Your task to perform on an android device: Open Amazon Image 0: 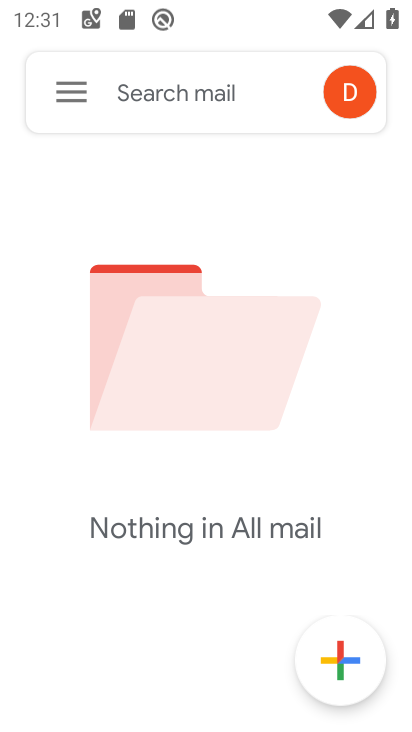
Step 0: press home button
Your task to perform on an android device: Open Amazon Image 1: 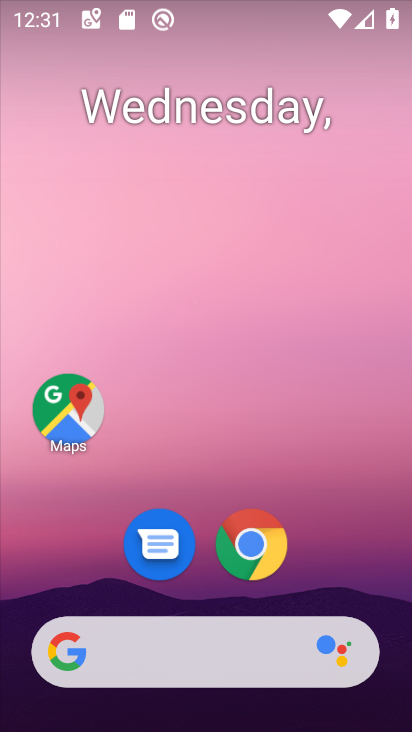
Step 1: drag from (220, 602) to (212, 255)
Your task to perform on an android device: Open Amazon Image 2: 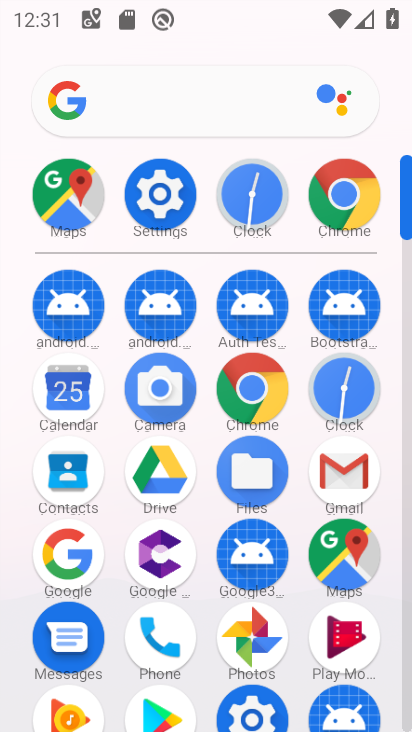
Step 2: click (238, 407)
Your task to perform on an android device: Open Amazon Image 3: 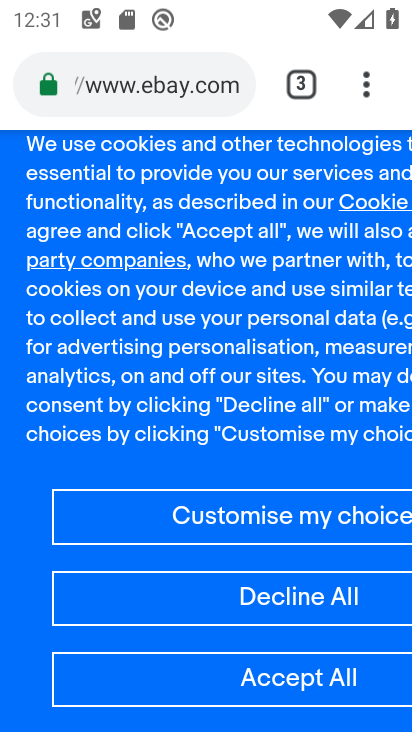
Step 3: click (317, 87)
Your task to perform on an android device: Open Amazon Image 4: 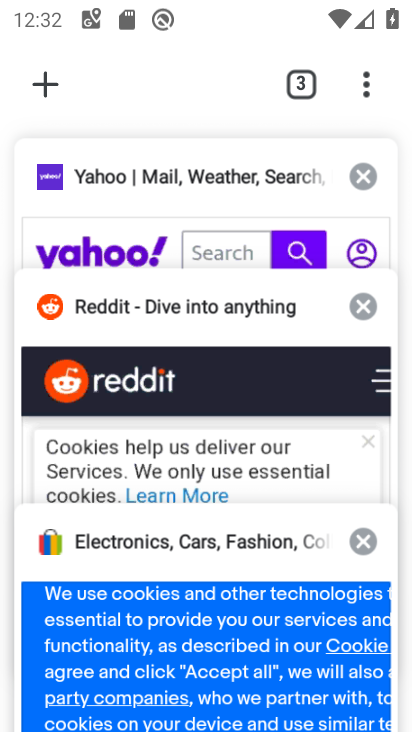
Step 4: click (46, 78)
Your task to perform on an android device: Open Amazon Image 5: 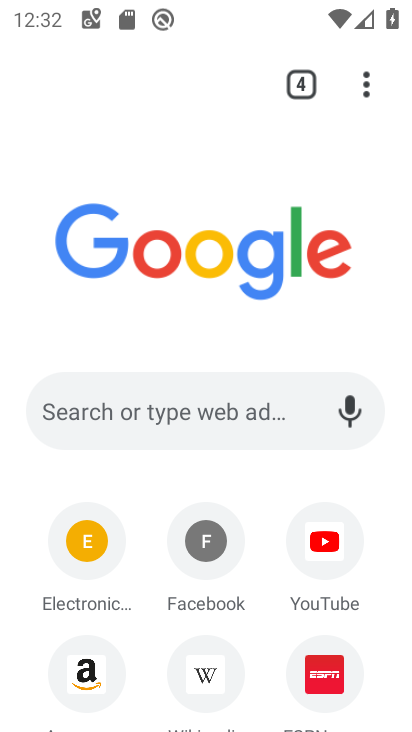
Step 5: click (90, 680)
Your task to perform on an android device: Open Amazon Image 6: 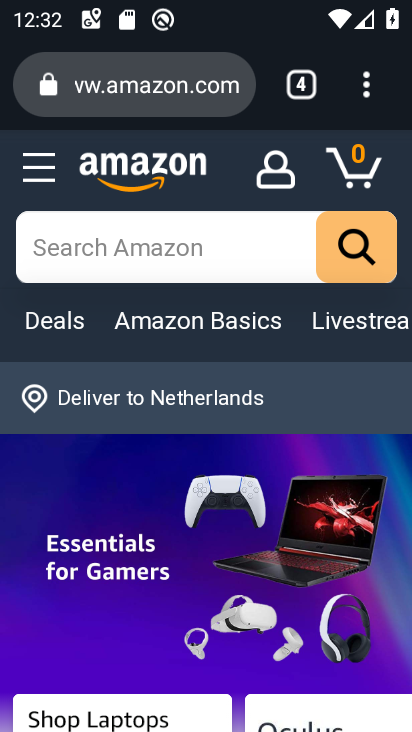
Step 6: task complete